Your task to perform on an android device: Open Yahoo.com Image 0: 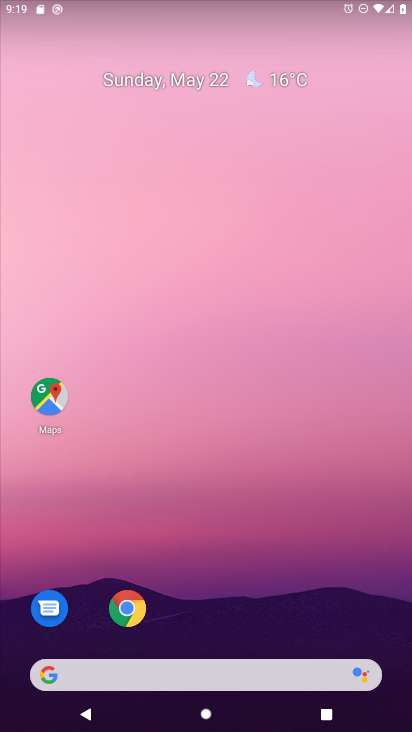
Step 0: click (129, 606)
Your task to perform on an android device: Open Yahoo.com Image 1: 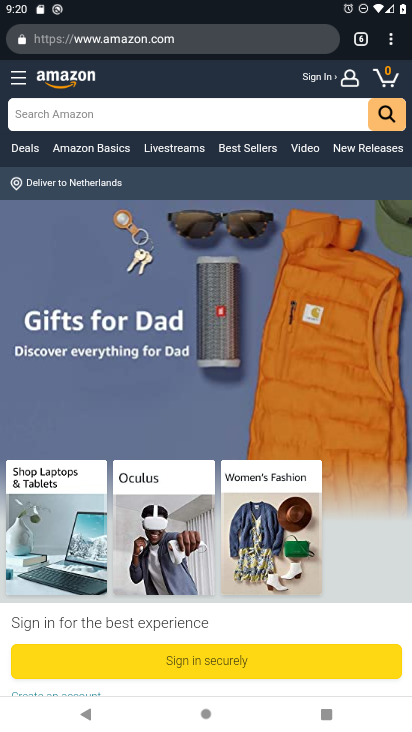
Step 1: click (391, 45)
Your task to perform on an android device: Open Yahoo.com Image 2: 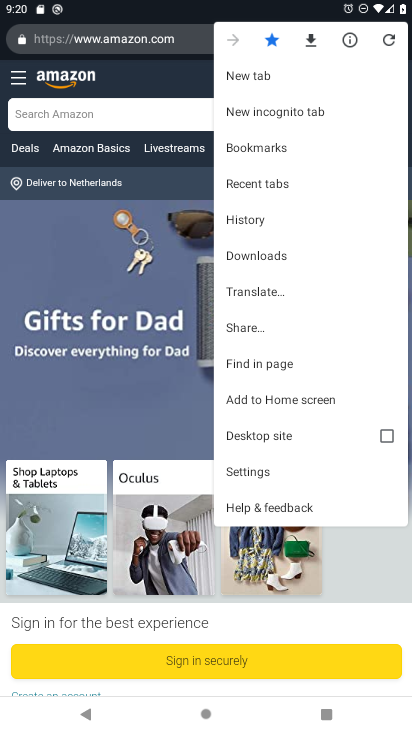
Step 2: click (249, 72)
Your task to perform on an android device: Open Yahoo.com Image 3: 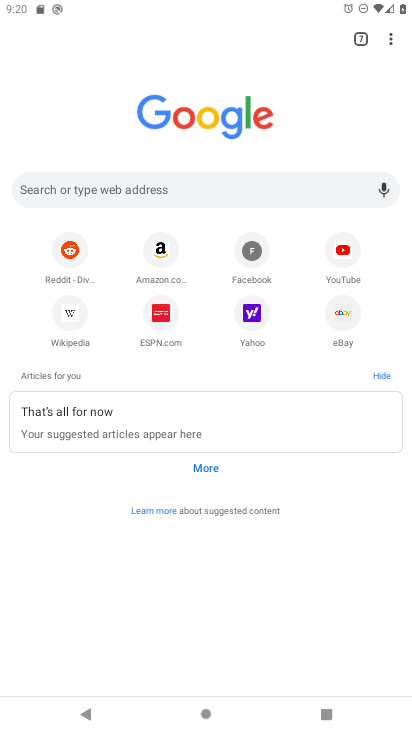
Step 3: click (246, 318)
Your task to perform on an android device: Open Yahoo.com Image 4: 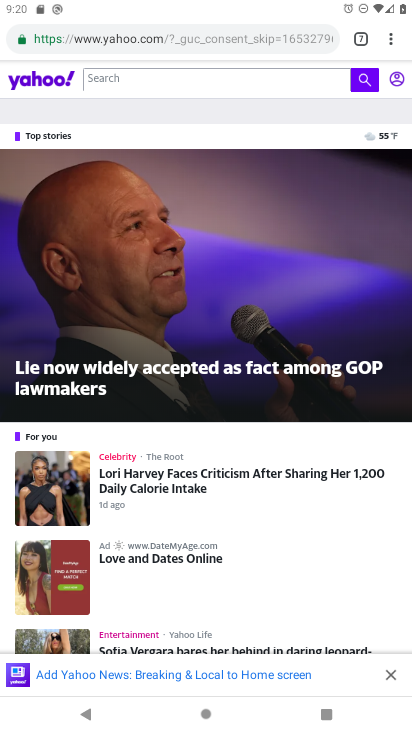
Step 4: task complete